Your task to perform on an android device: Search for flights from Barcelona to Mexico city Image 0: 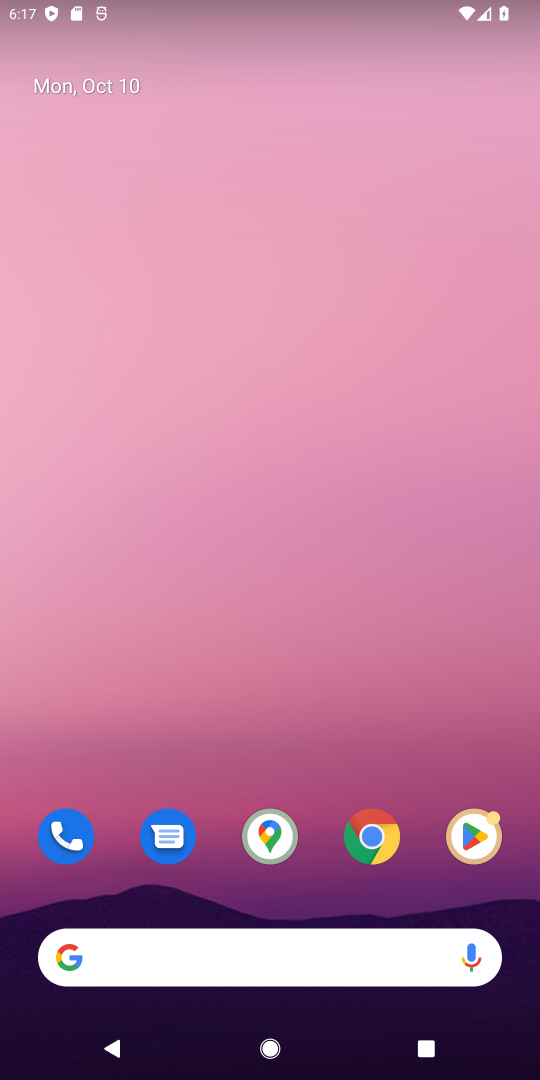
Step 0: click (373, 839)
Your task to perform on an android device: Search for flights from Barcelona to Mexico city Image 1: 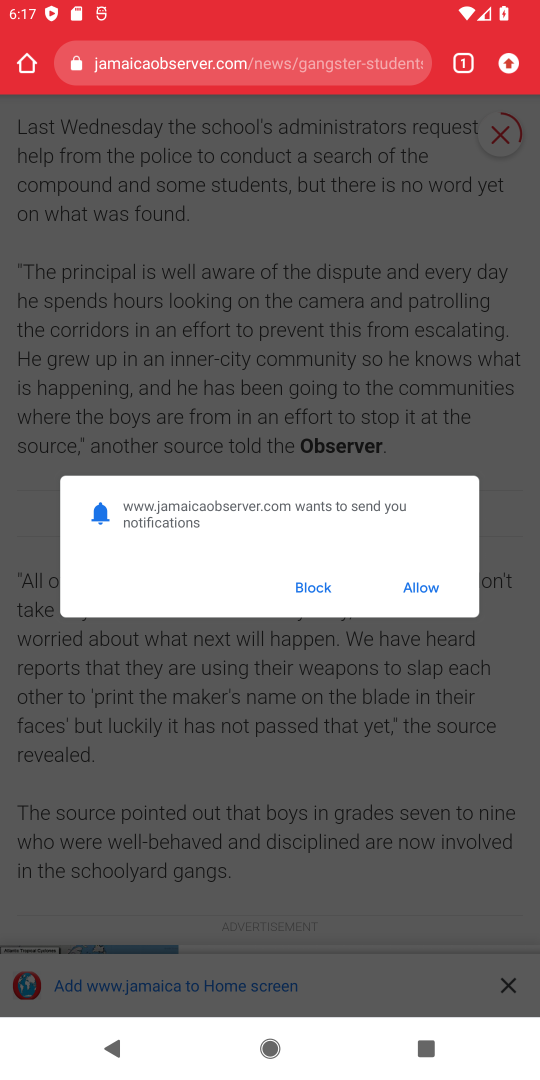
Step 1: click (321, 585)
Your task to perform on an android device: Search for flights from Barcelona to Mexico city Image 2: 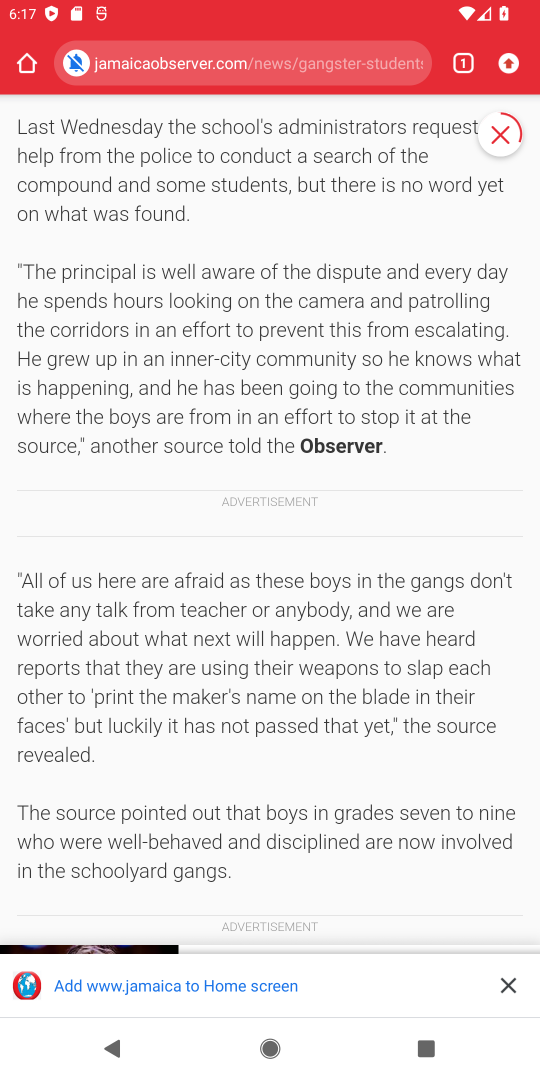
Step 2: click (273, 48)
Your task to perform on an android device: Search for flights from Barcelona to Mexico city Image 3: 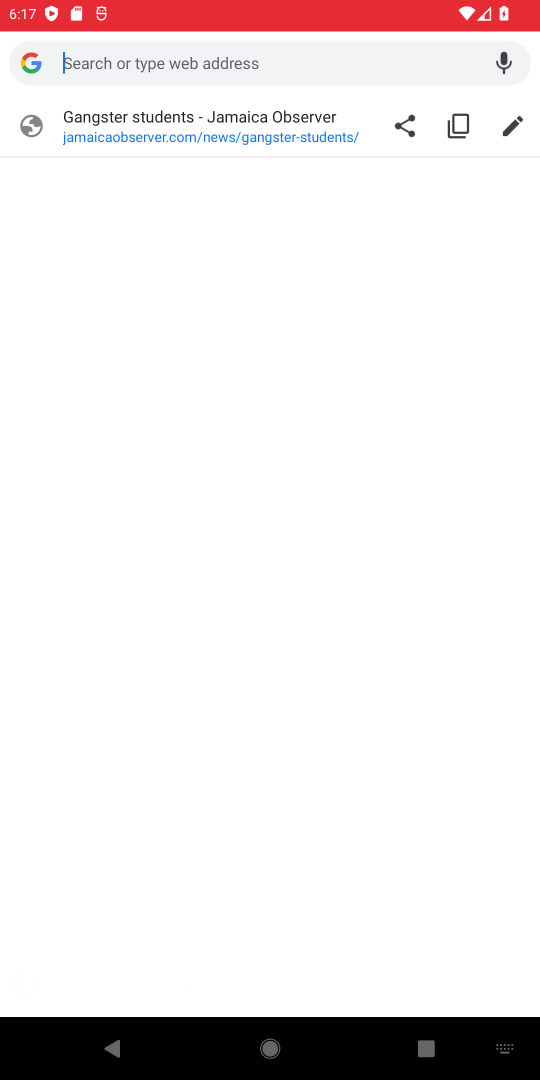
Step 3: type "flights from Barcelona to Mexico city"
Your task to perform on an android device: Search for flights from Barcelona to Mexico city Image 4: 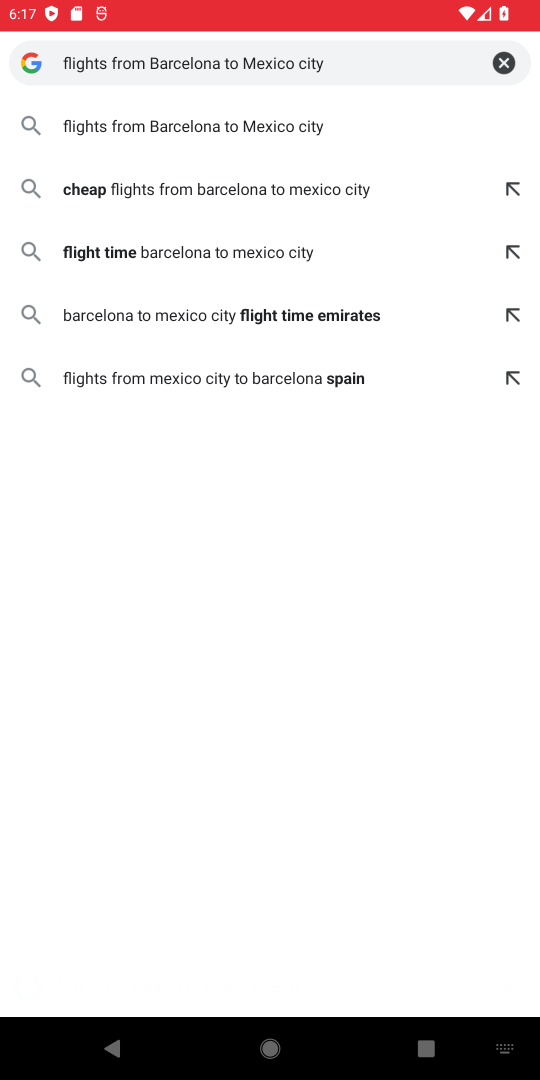
Step 4: click (154, 121)
Your task to perform on an android device: Search for flights from Barcelona to Mexico city Image 5: 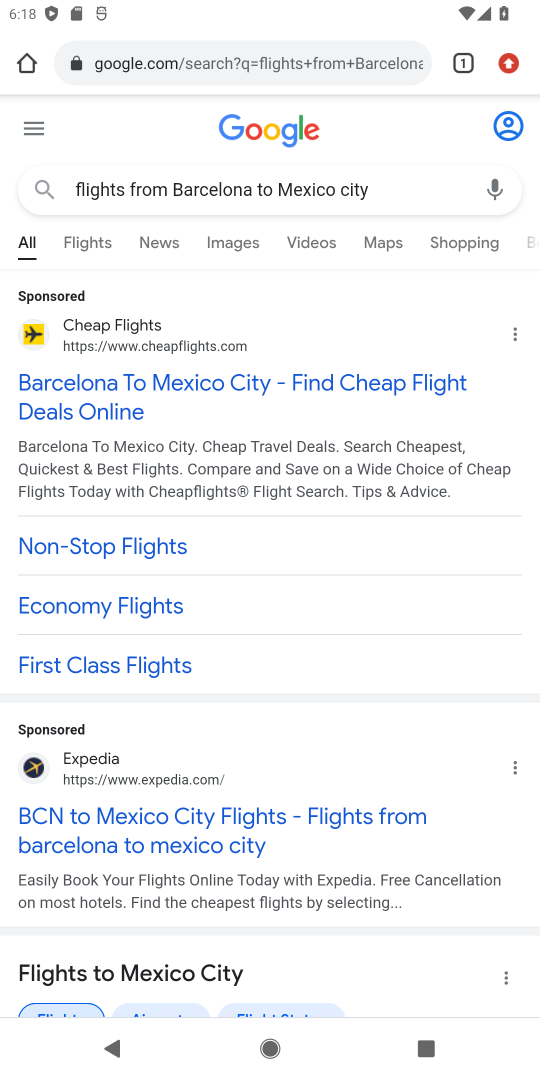
Step 5: click (118, 380)
Your task to perform on an android device: Search for flights from Barcelona to Mexico city Image 6: 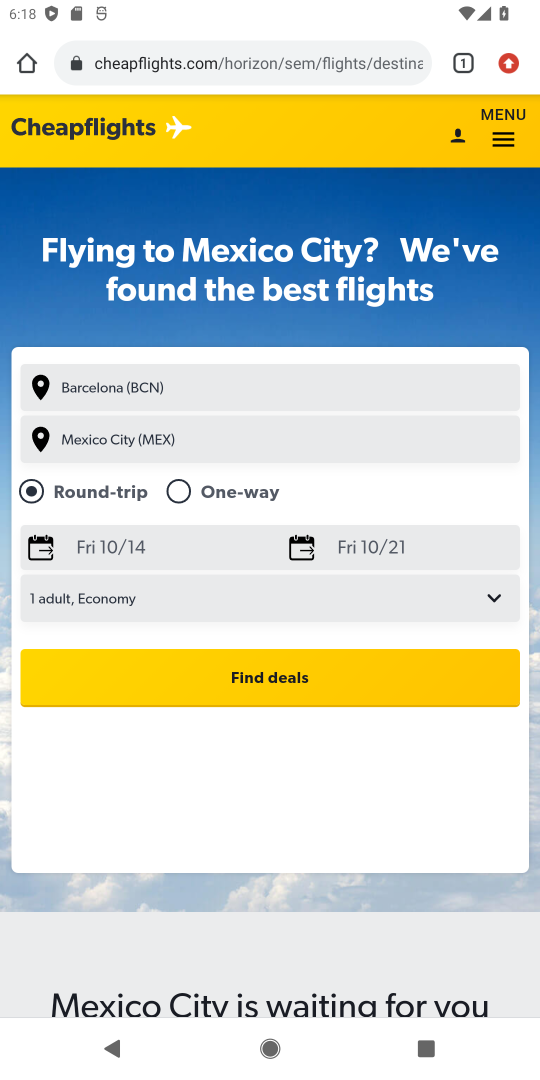
Step 6: click (258, 672)
Your task to perform on an android device: Search for flights from Barcelona to Mexico city Image 7: 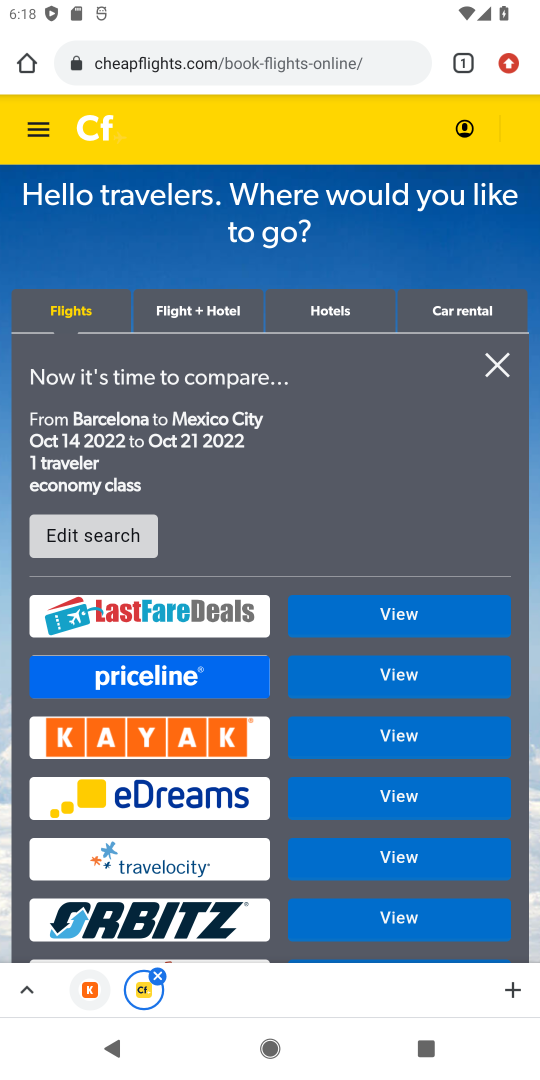
Step 7: click (492, 361)
Your task to perform on an android device: Search for flights from Barcelona to Mexico city Image 8: 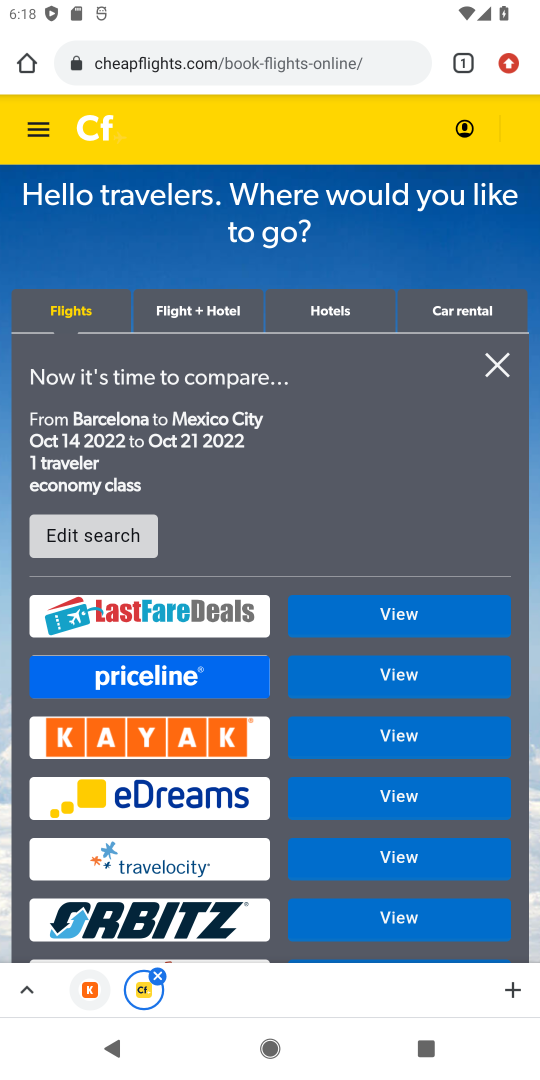
Step 8: click (497, 359)
Your task to perform on an android device: Search for flights from Barcelona to Mexico city Image 9: 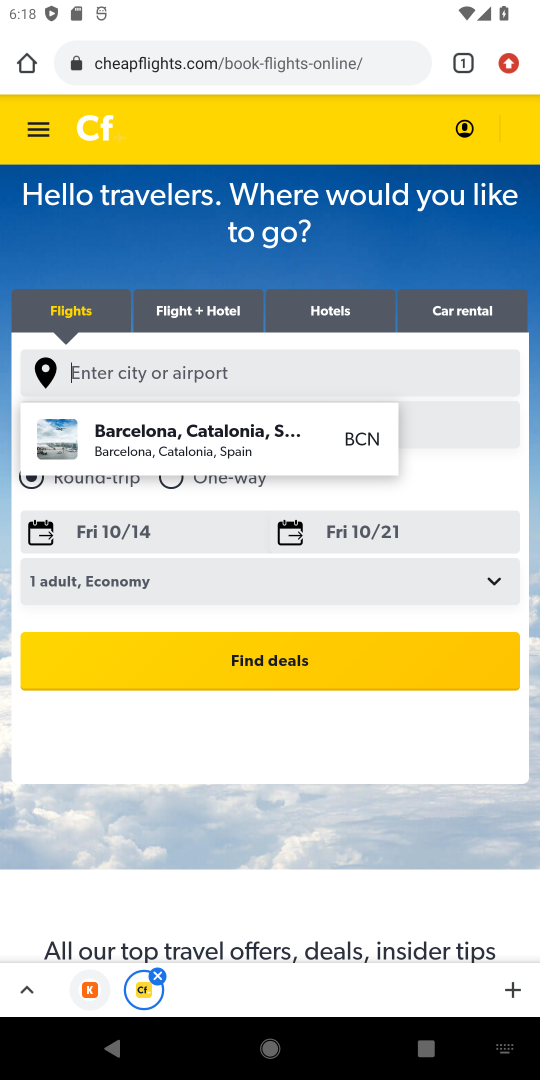
Step 9: click (251, 659)
Your task to perform on an android device: Search for flights from Barcelona to Mexico city Image 10: 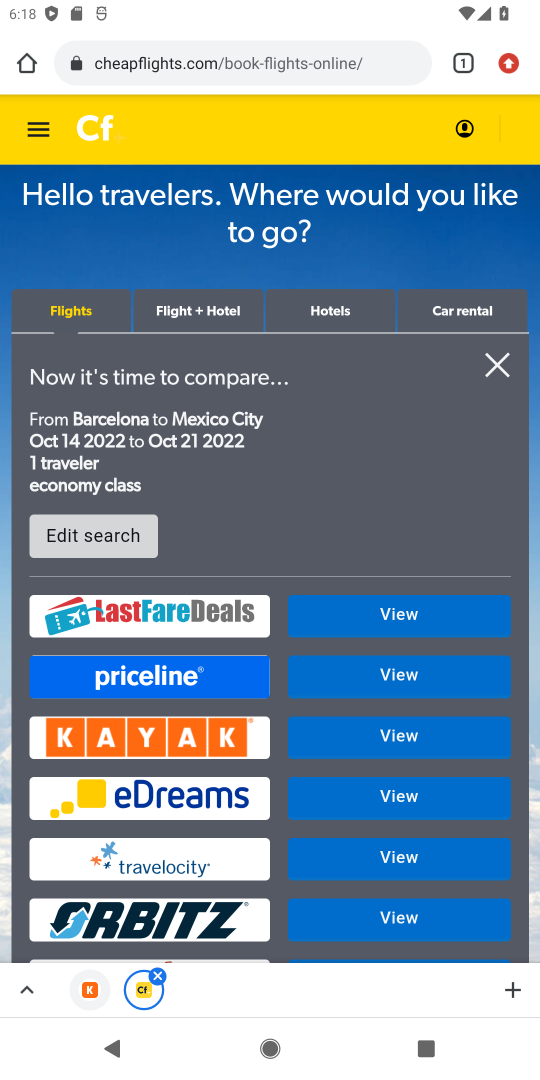
Step 10: task complete